Your task to perform on an android device: Open Youtube and go to the subscriptions tab Image 0: 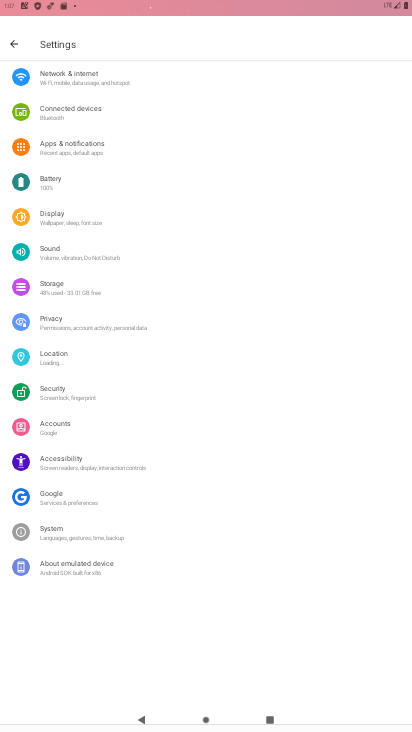
Step 0: click (72, 382)
Your task to perform on an android device: Open Youtube and go to the subscriptions tab Image 1: 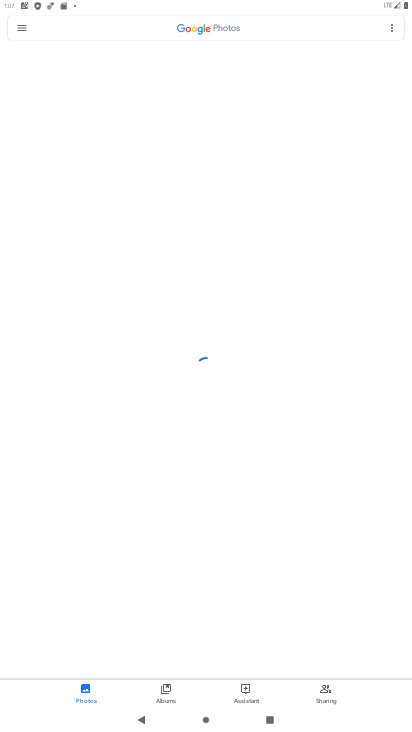
Step 1: press home button
Your task to perform on an android device: Open Youtube and go to the subscriptions tab Image 2: 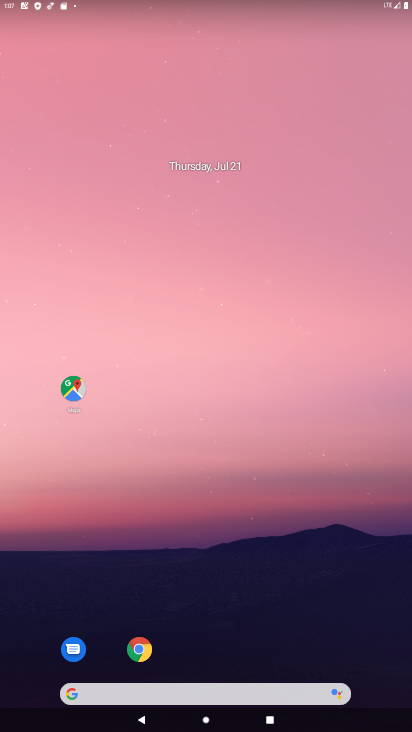
Step 2: drag from (179, 675) to (151, 395)
Your task to perform on an android device: Open Youtube and go to the subscriptions tab Image 3: 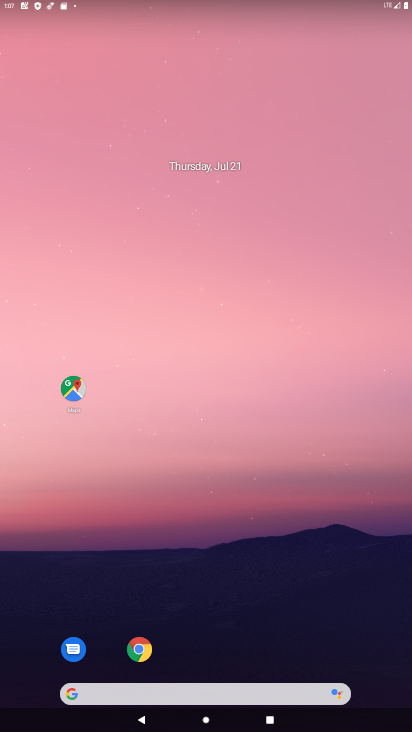
Step 3: drag from (260, 681) to (246, 299)
Your task to perform on an android device: Open Youtube and go to the subscriptions tab Image 4: 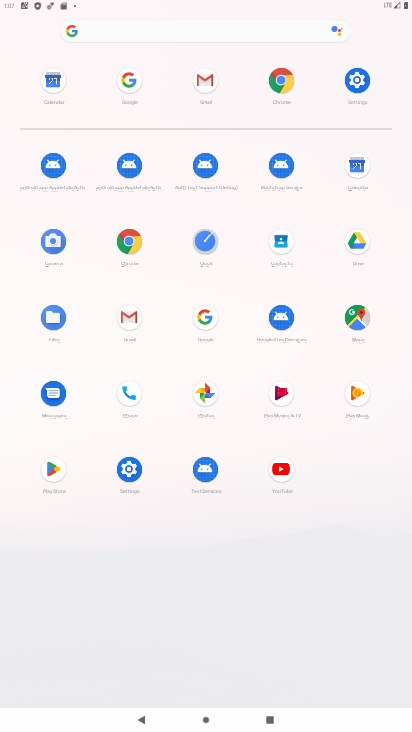
Step 4: click (277, 470)
Your task to perform on an android device: Open Youtube and go to the subscriptions tab Image 5: 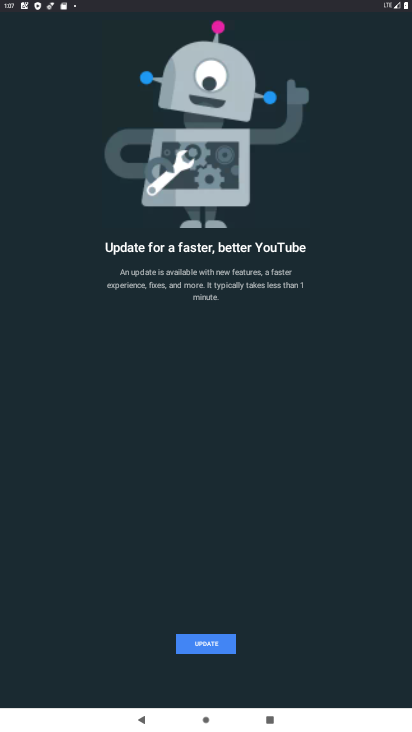
Step 5: click (217, 641)
Your task to perform on an android device: Open Youtube and go to the subscriptions tab Image 6: 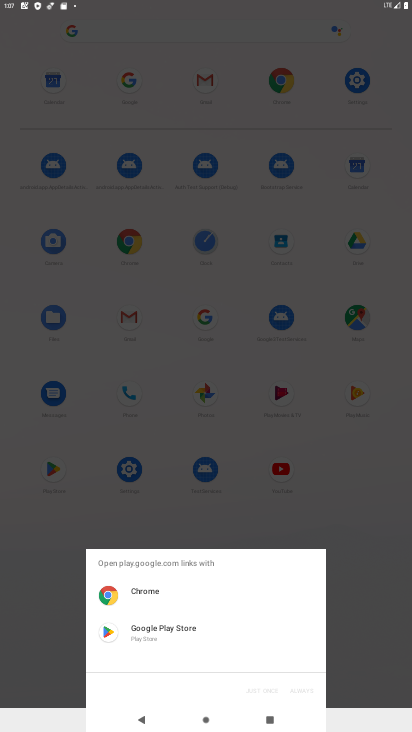
Step 6: click (188, 638)
Your task to perform on an android device: Open Youtube and go to the subscriptions tab Image 7: 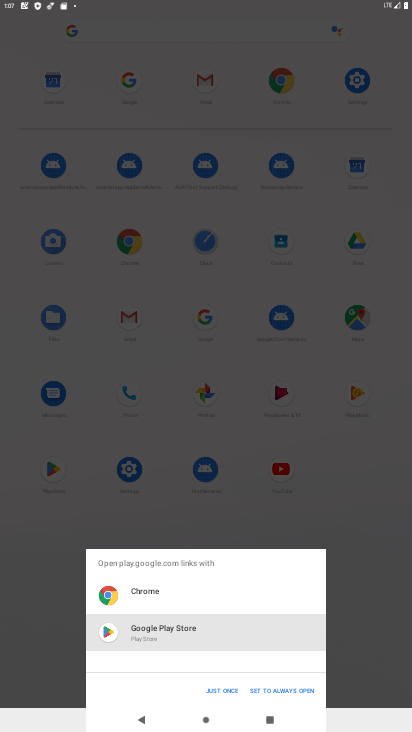
Step 7: click (228, 691)
Your task to perform on an android device: Open Youtube and go to the subscriptions tab Image 8: 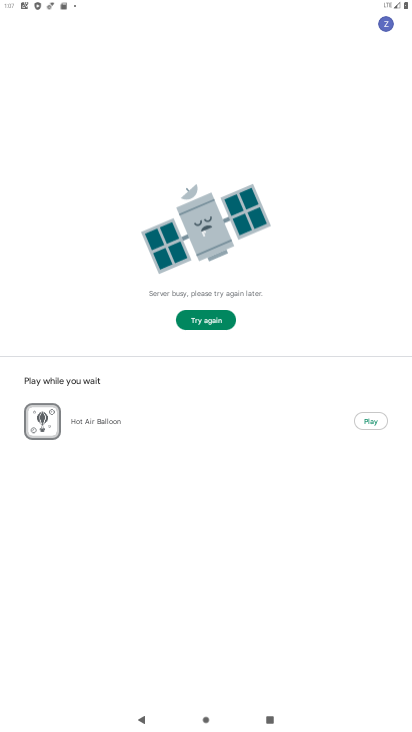
Step 8: task complete